Your task to perform on an android device: Open Google Maps and go to "Timeline" Image 0: 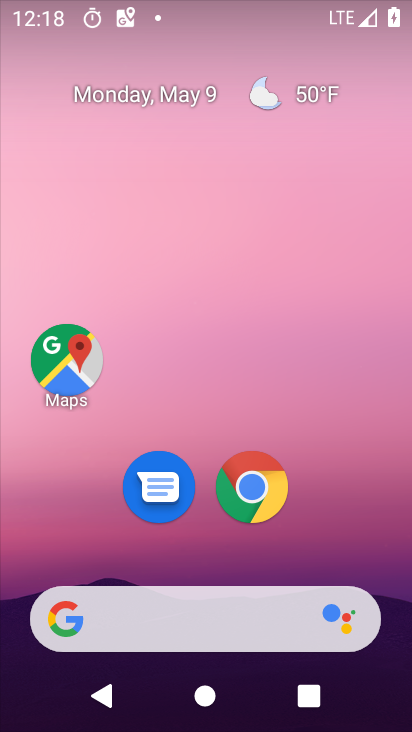
Step 0: click (50, 382)
Your task to perform on an android device: Open Google Maps and go to "Timeline" Image 1: 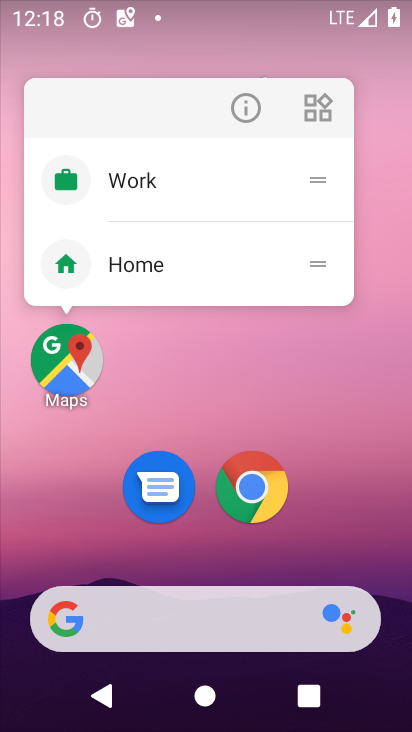
Step 1: click (39, 395)
Your task to perform on an android device: Open Google Maps and go to "Timeline" Image 2: 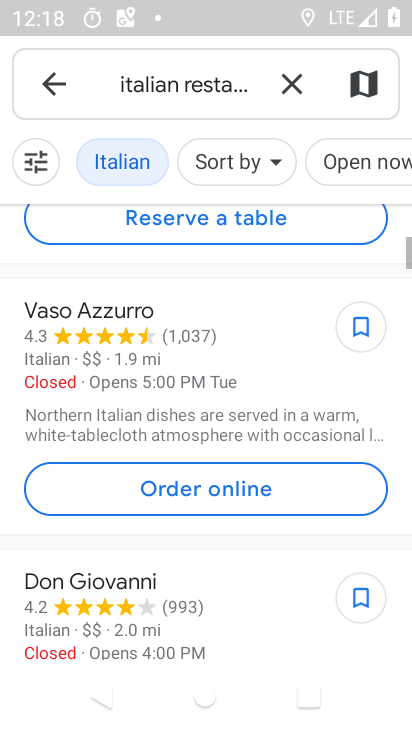
Step 2: click (302, 87)
Your task to perform on an android device: Open Google Maps and go to "Timeline" Image 3: 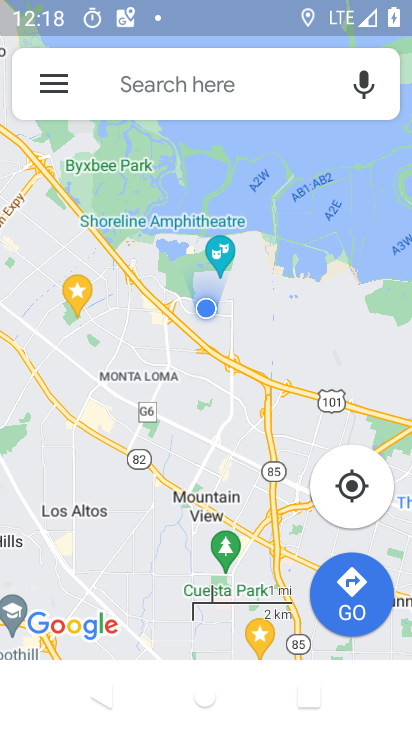
Step 3: click (63, 83)
Your task to perform on an android device: Open Google Maps and go to "Timeline" Image 4: 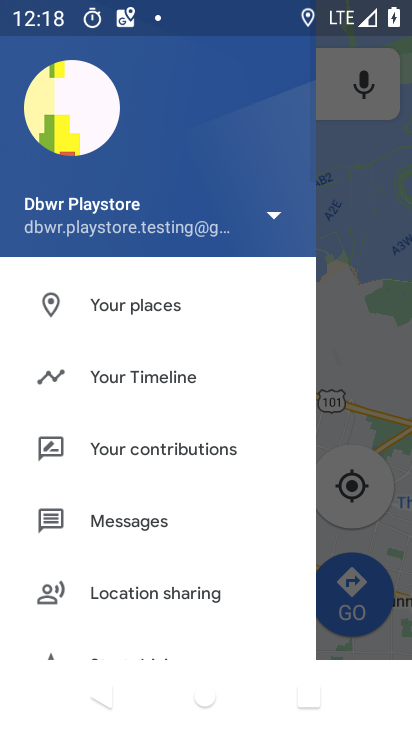
Step 4: click (173, 365)
Your task to perform on an android device: Open Google Maps and go to "Timeline" Image 5: 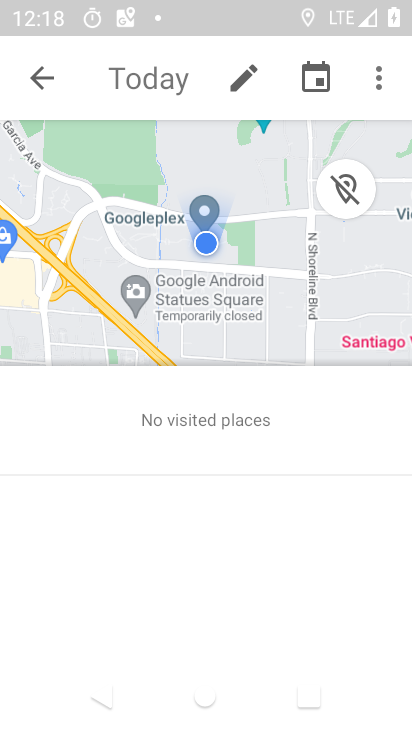
Step 5: task complete